Your task to perform on an android device: What's the weather going to be tomorrow? Image 0: 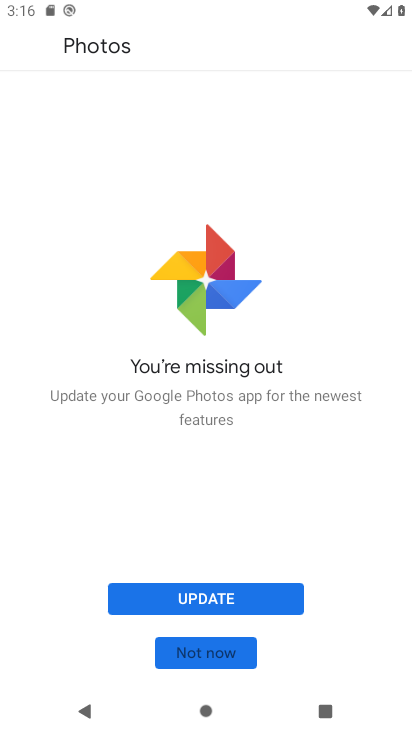
Step 0: press home button
Your task to perform on an android device: What's the weather going to be tomorrow? Image 1: 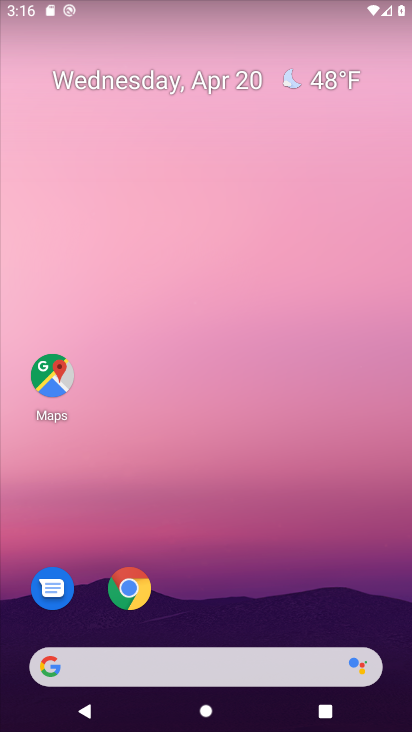
Step 1: click (250, 659)
Your task to perform on an android device: What's the weather going to be tomorrow? Image 2: 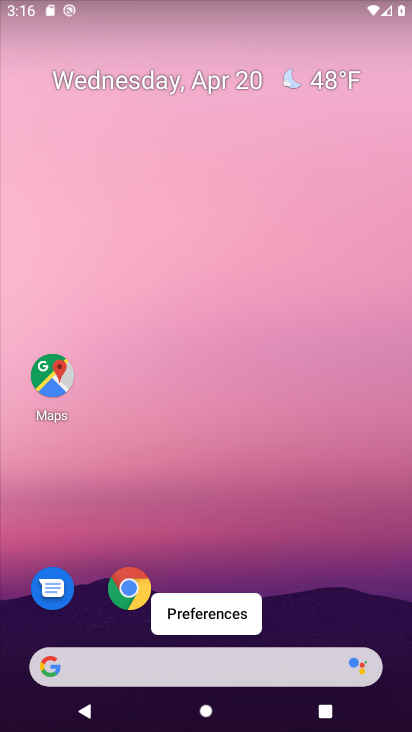
Step 2: click (250, 659)
Your task to perform on an android device: What's the weather going to be tomorrow? Image 3: 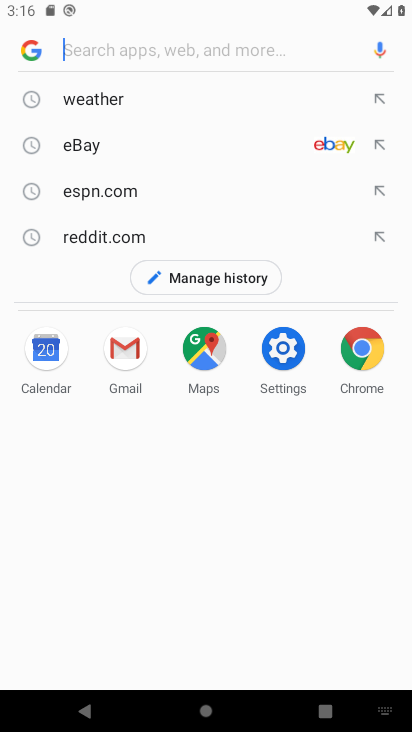
Step 3: click (96, 103)
Your task to perform on an android device: What's the weather going to be tomorrow? Image 4: 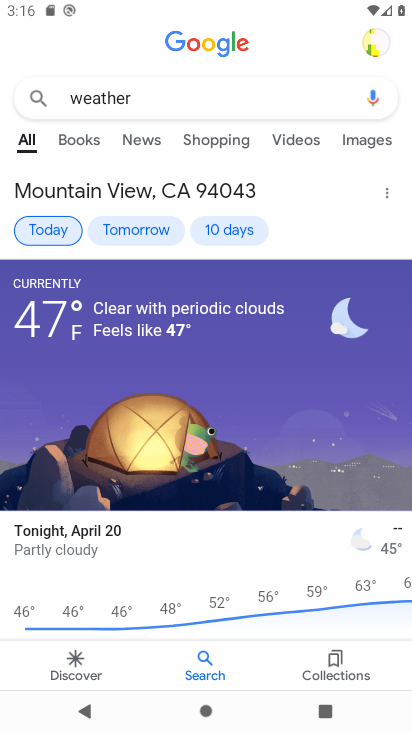
Step 4: click (144, 233)
Your task to perform on an android device: What's the weather going to be tomorrow? Image 5: 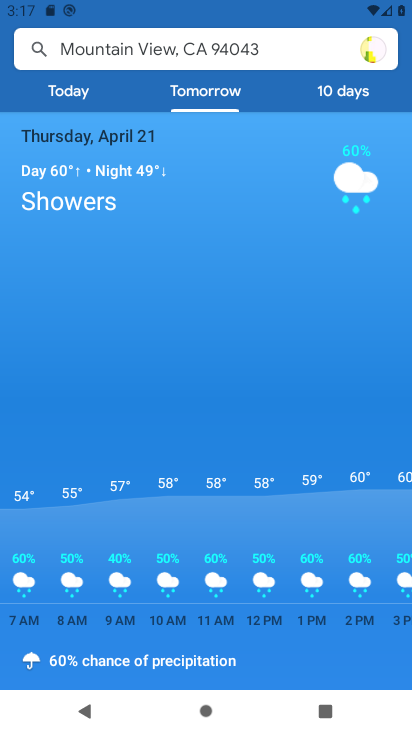
Step 5: task complete